Your task to perform on an android device: Open network settings Image 0: 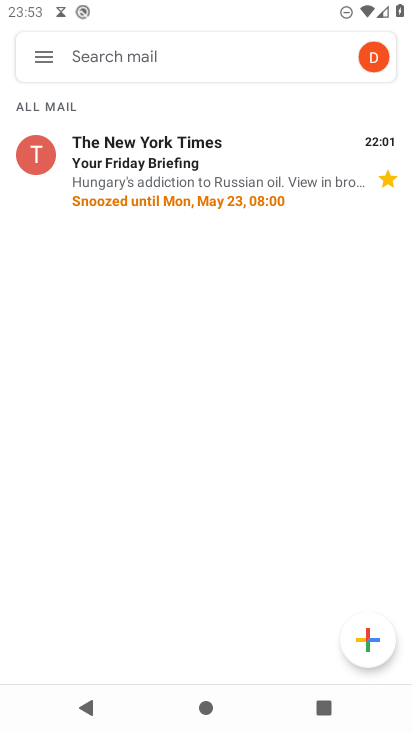
Step 0: press home button
Your task to perform on an android device: Open network settings Image 1: 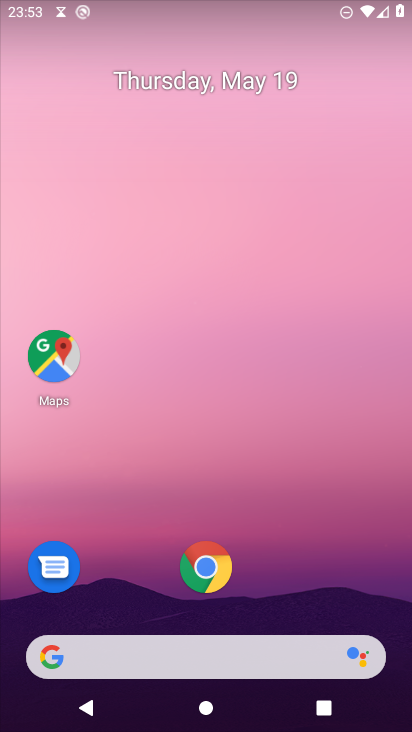
Step 1: drag from (260, 610) to (347, 7)
Your task to perform on an android device: Open network settings Image 2: 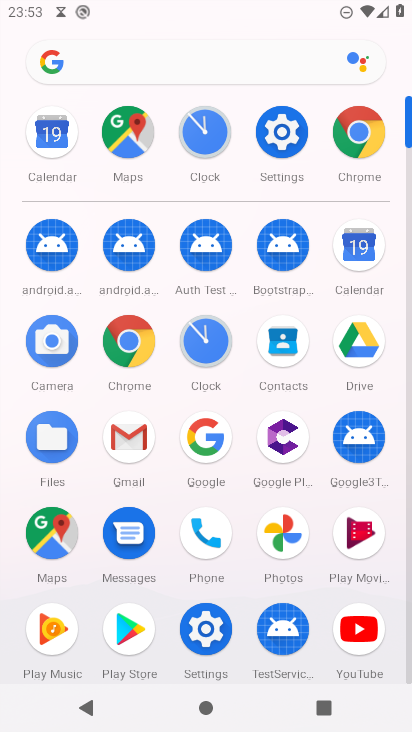
Step 2: click (281, 123)
Your task to perform on an android device: Open network settings Image 3: 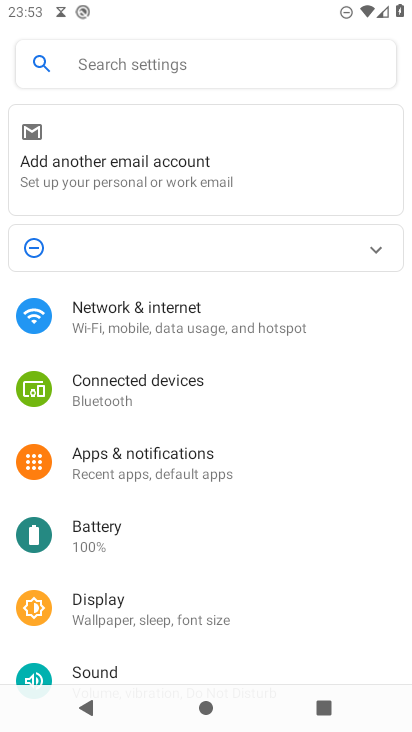
Step 3: click (140, 191)
Your task to perform on an android device: Open network settings Image 4: 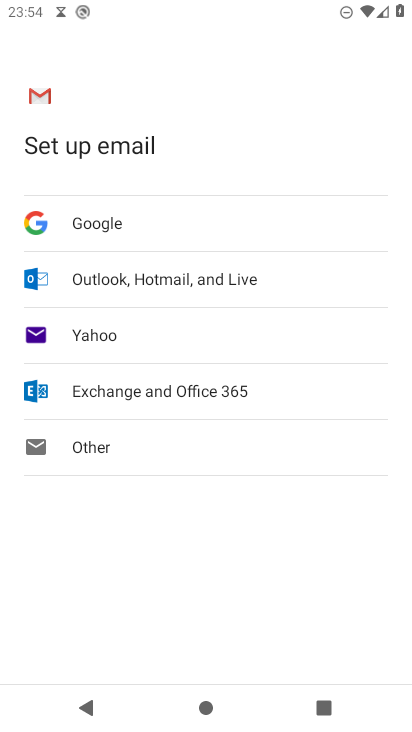
Step 4: press back button
Your task to perform on an android device: Open network settings Image 5: 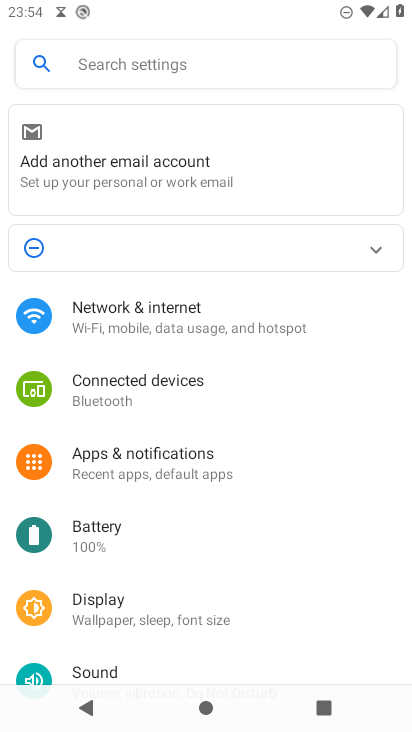
Step 5: click (170, 318)
Your task to perform on an android device: Open network settings Image 6: 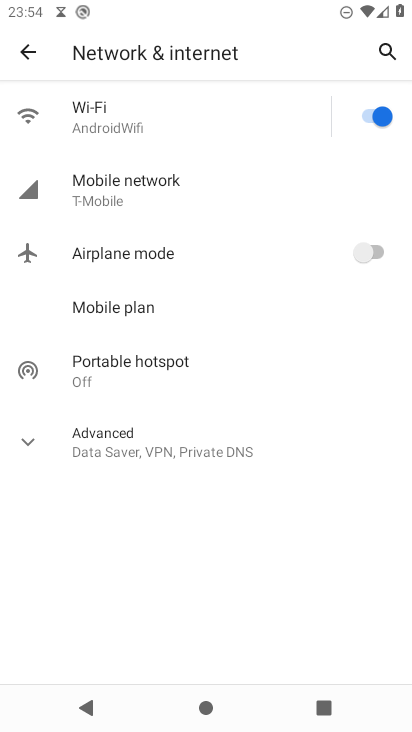
Step 6: click (34, 437)
Your task to perform on an android device: Open network settings Image 7: 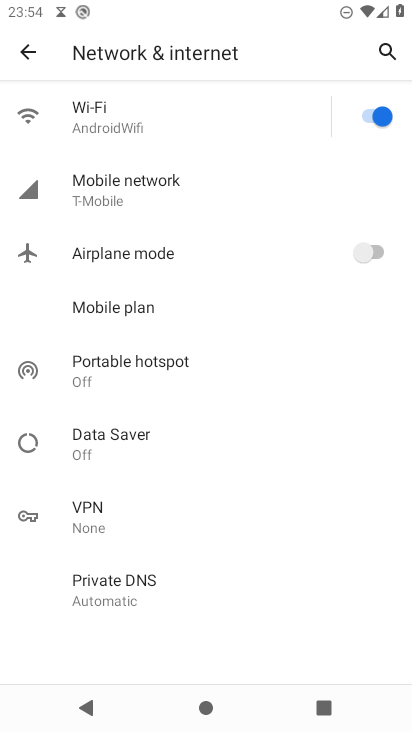
Step 7: task complete